Your task to perform on an android device: search for starred emails in the gmail app Image 0: 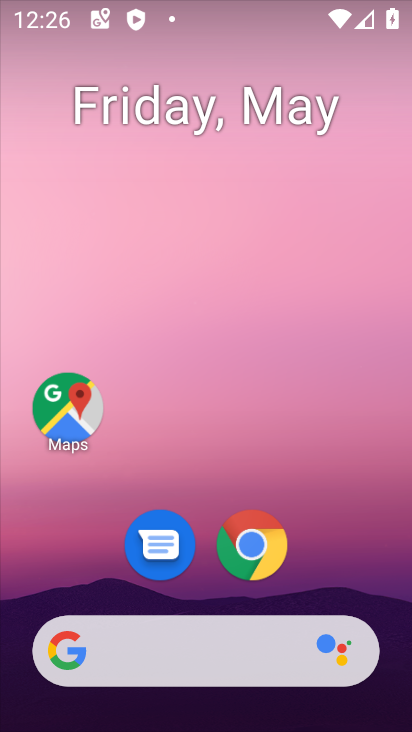
Step 0: drag from (349, 571) to (339, 0)
Your task to perform on an android device: search for starred emails in the gmail app Image 1: 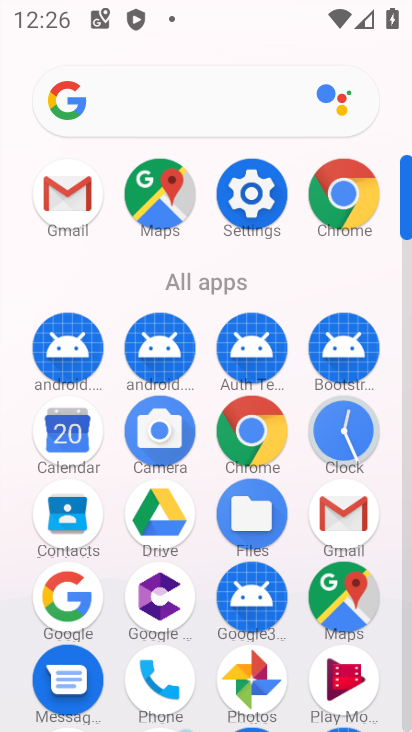
Step 1: click (57, 172)
Your task to perform on an android device: search for starred emails in the gmail app Image 2: 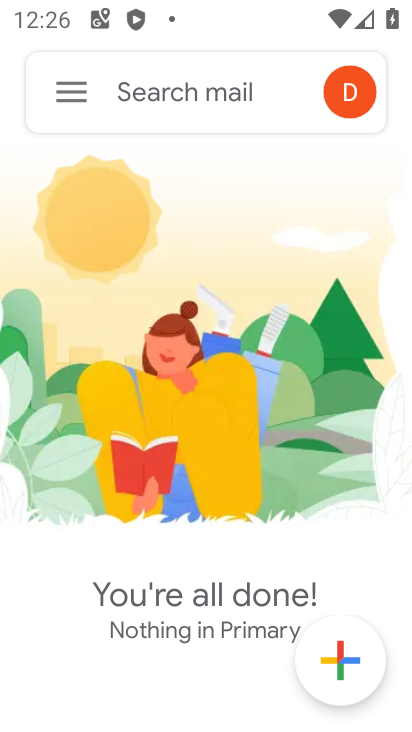
Step 2: click (68, 106)
Your task to perform on an android device: search for starred emails in the gmail app Image 3: 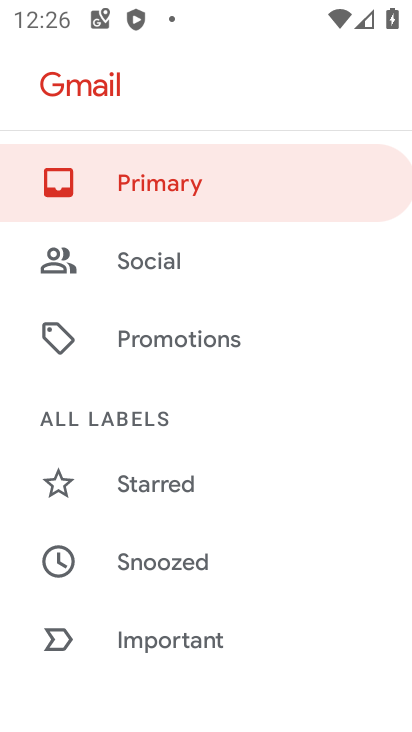
Step 3: drag from (201, 519) to (228, 275)
Your task to perform on an android device: search for starred emails in the gmail app Image 4: 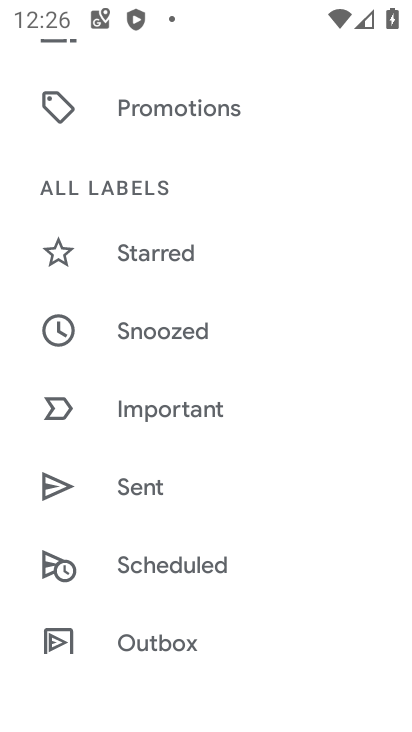
Step 4: click (239, 282)
Your task to perform on an android device: search for starred emails in the gmail app Image 5: 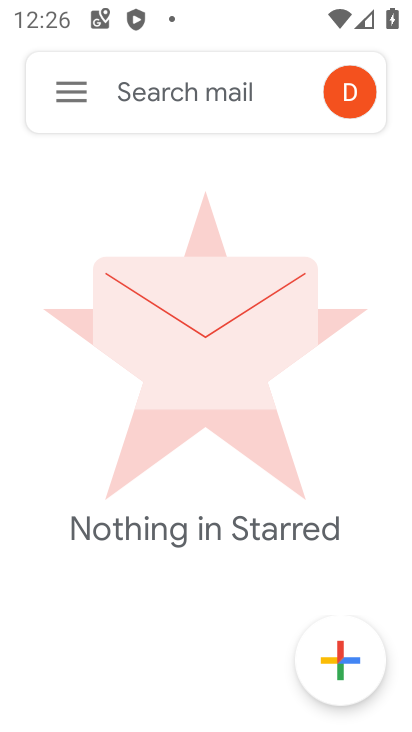
Step 5: task complete